Your task to perform on an android device: change timer sound Image 0: 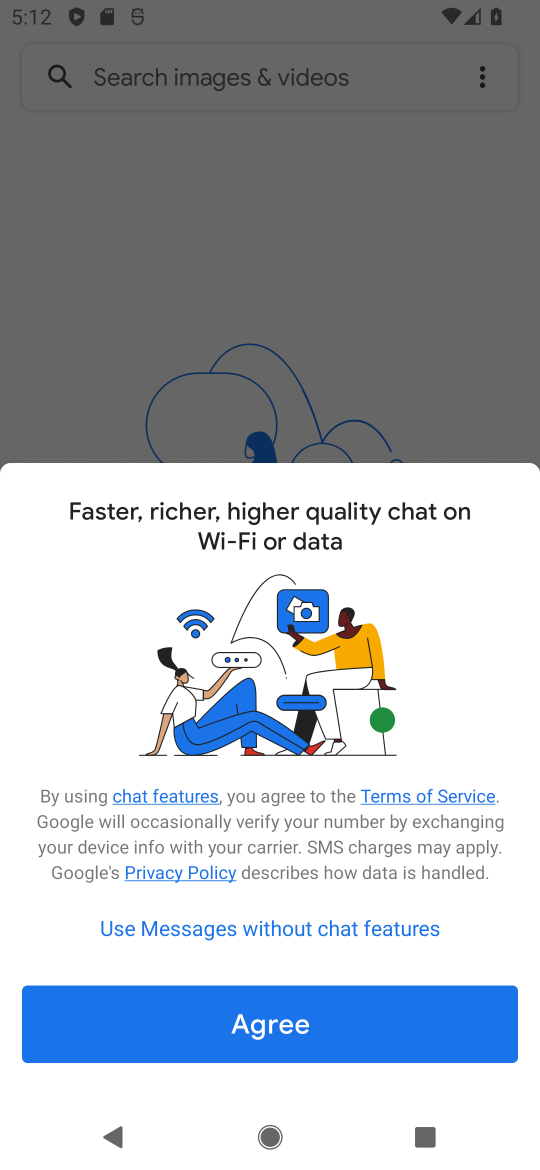
Step 0: press home button
Your task to perform on an android device: change timer sound Image 1: 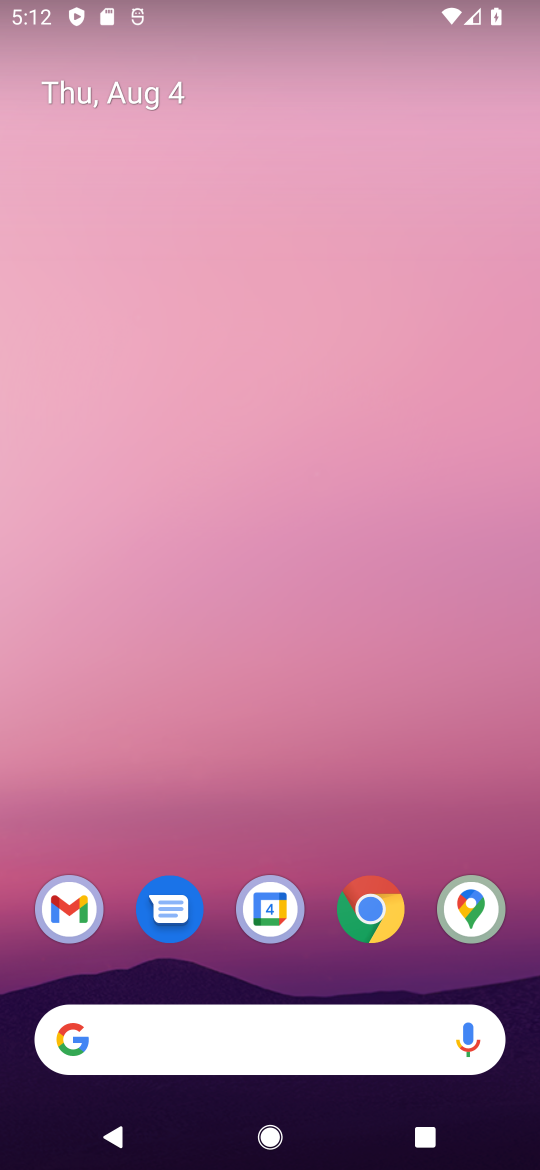
Step 1: drag from (204, 1050) to (237, 192)
Your task to perform on an android device: change timer sound Image 2: 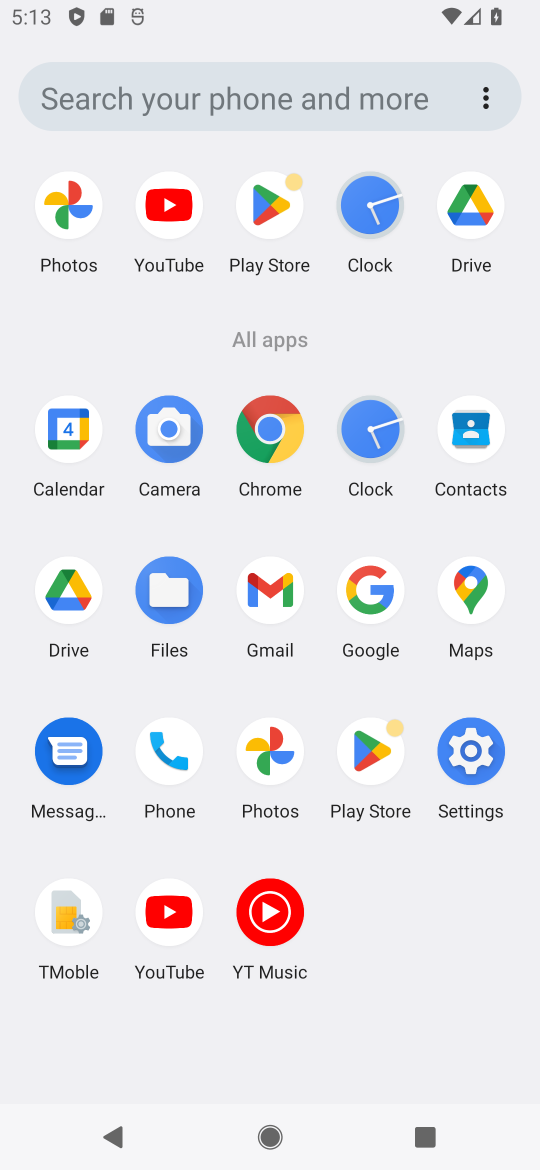
Step 2: click (372, 212)
Your task to perform on an android device: change timer sound Image 3: 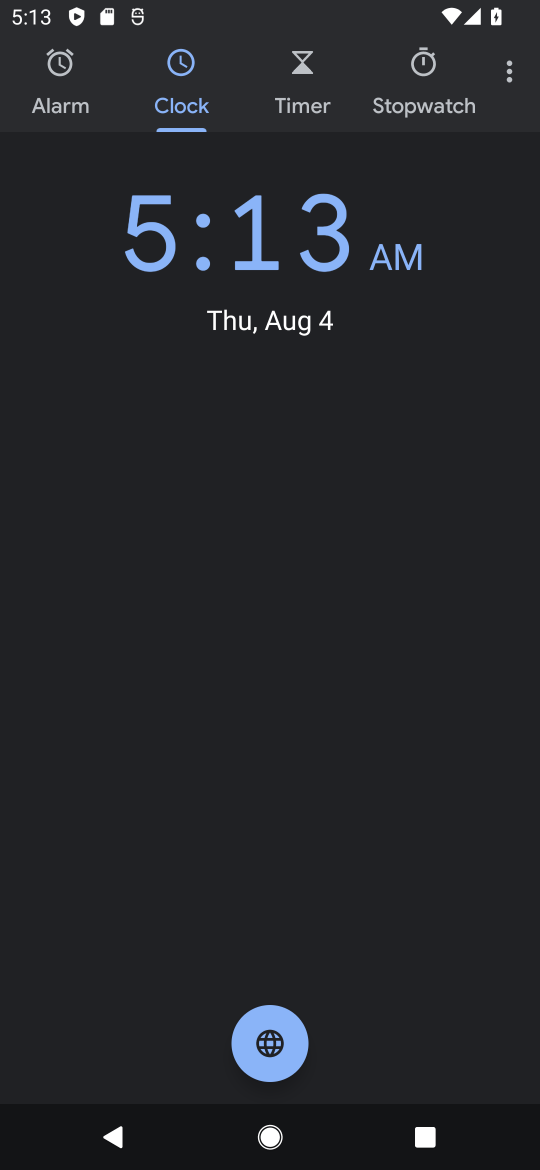
Step 3: click (512, 73)
Your task to perform on an android device: change timer sound Image 4: 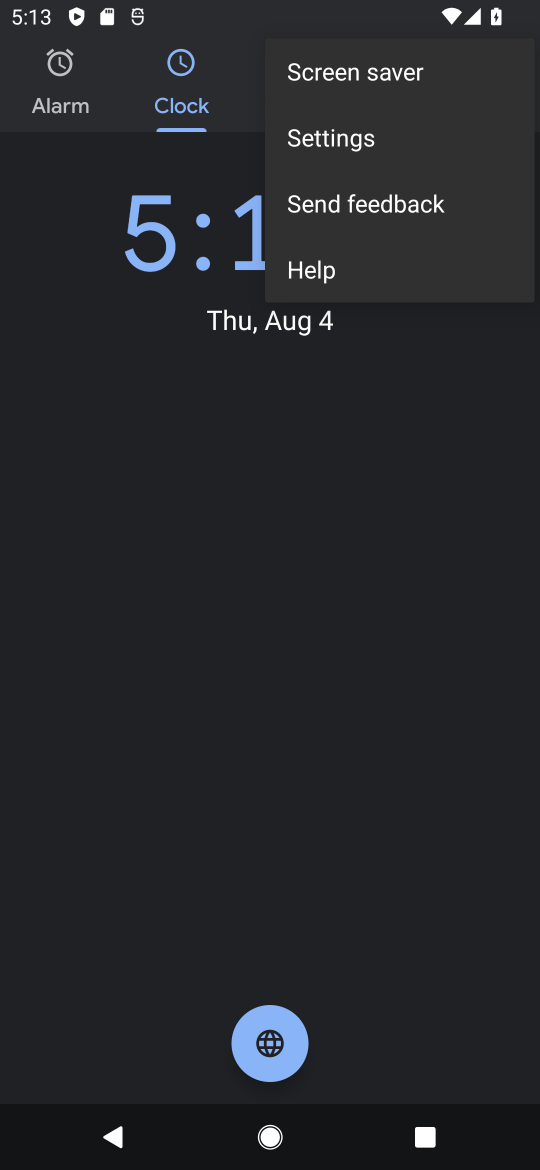
Step 4: click (354, 141)
Your task to perform on an android device: change timer sound Image 5: 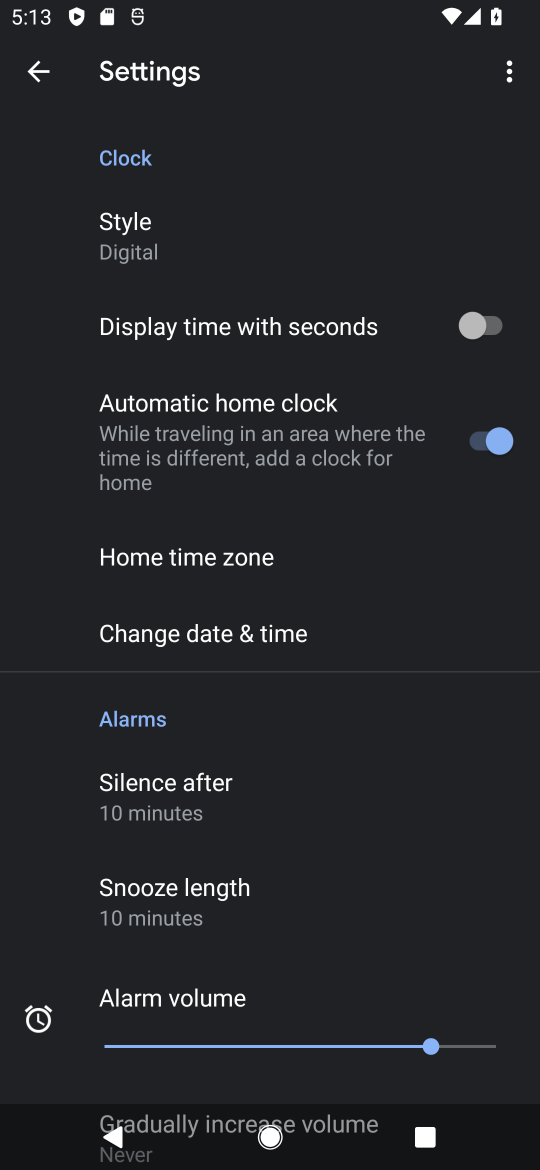
Step 5: drag from (201, 933) to (226, 471)
Your task to perform on an android device: change timer sound Image 6: 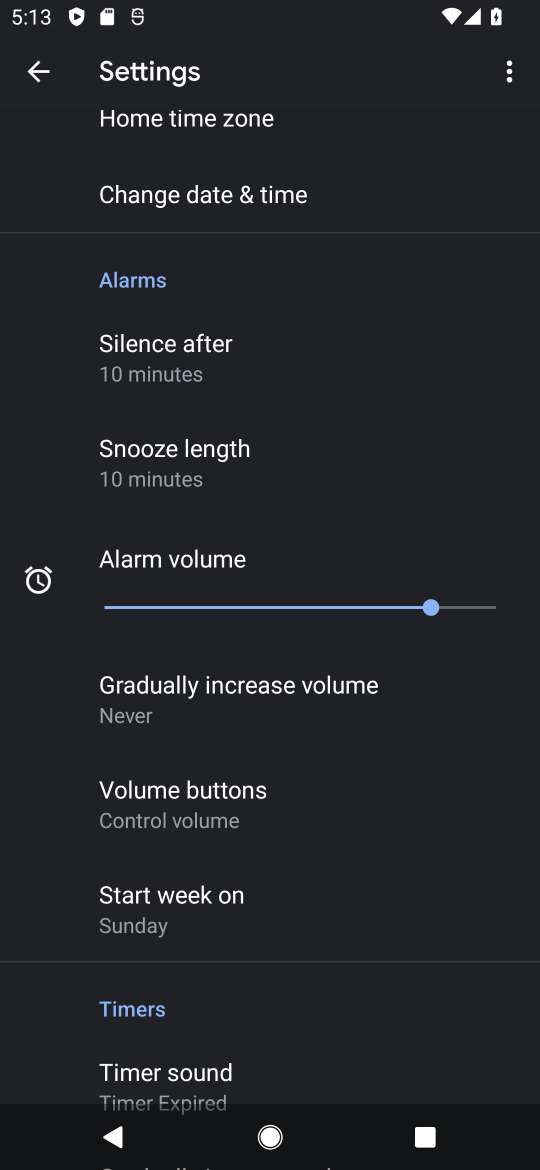
Step 6: drag from (239, 949) to (252, 528)
Your task to perform on an android device: change timer sound Image 7: 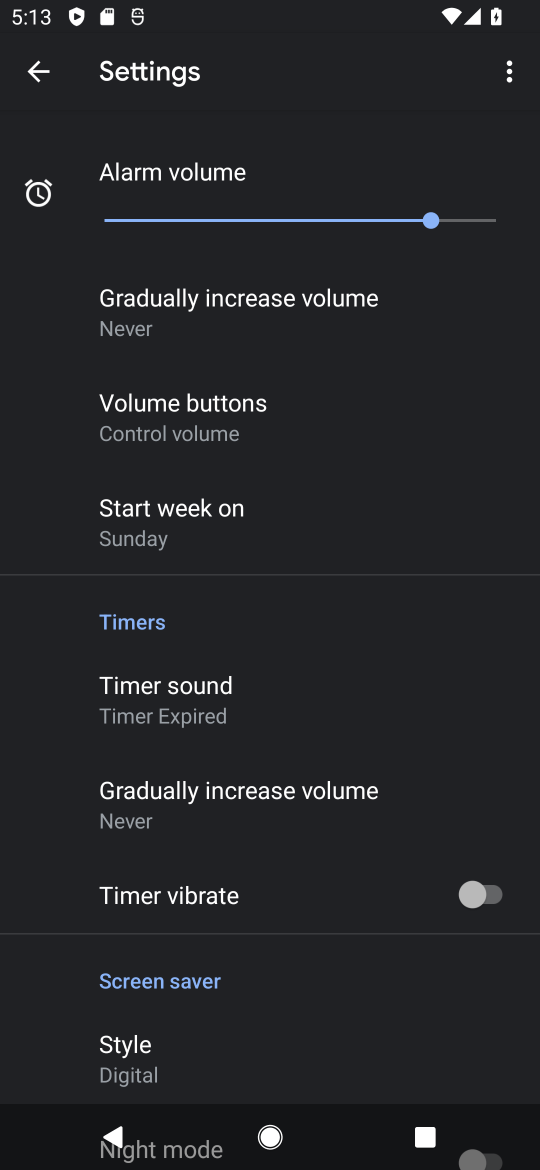
Step 7: click (193, 698)
Your task to perform on an android device: change timer sound Image 8: 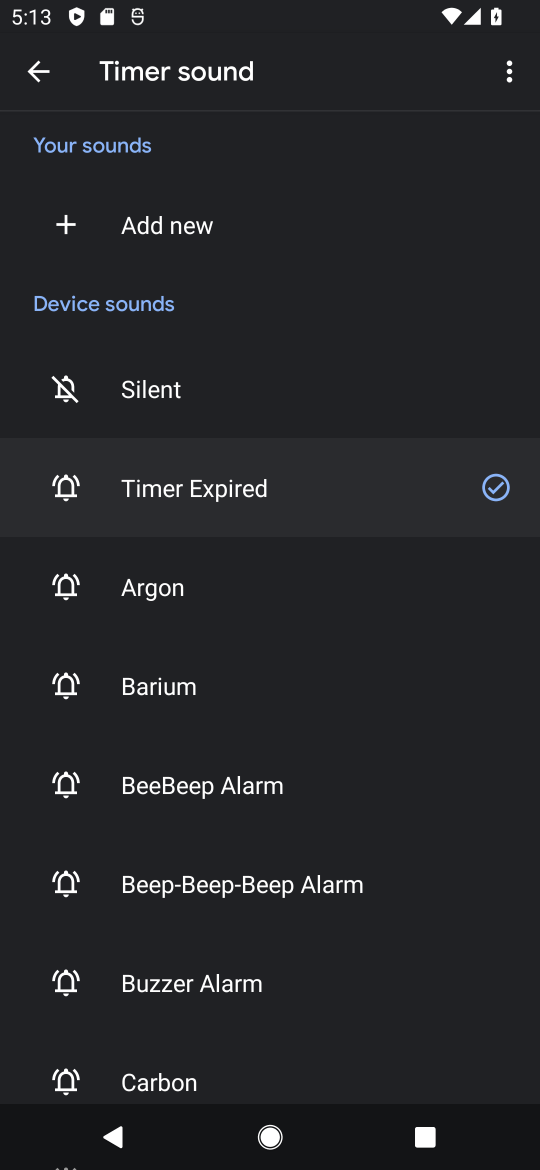
Step 8: click (192, 775)
Your task to perform on an android device: change timer sound Image 9: 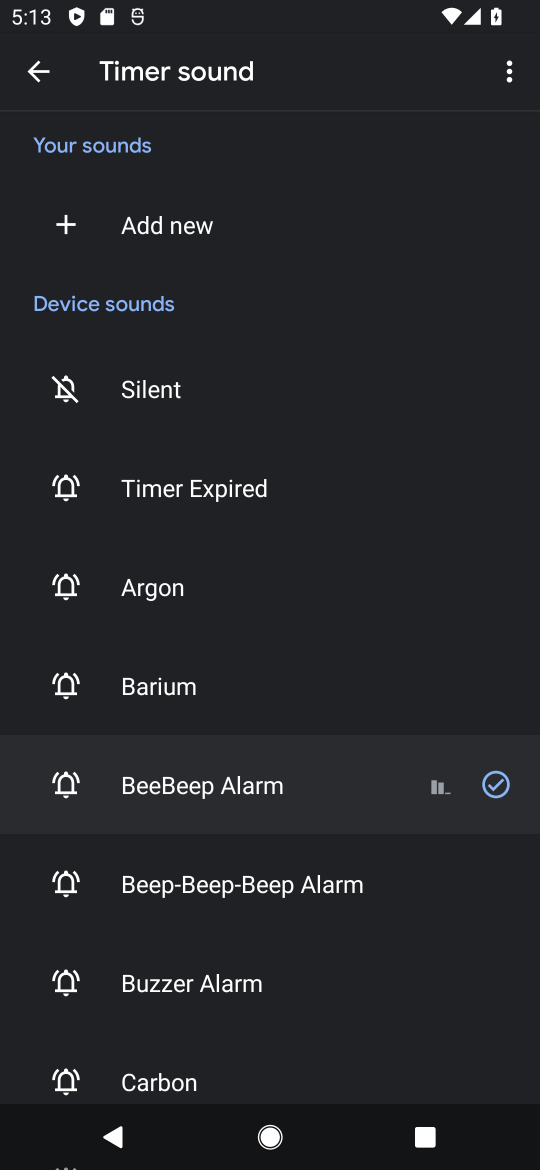
Step 9: task complete